Your task to perform on an android device: turn smart compose on in the gmail app Image 0: 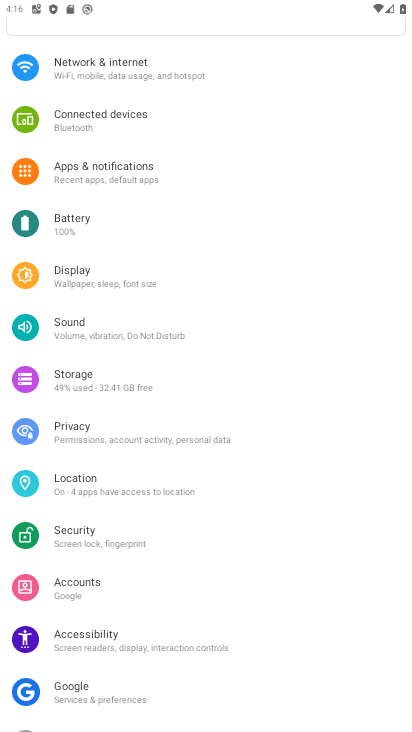
Step 0: press home button
Your task to perform on an android device: turn smart compose on in the gmail app Image 1: 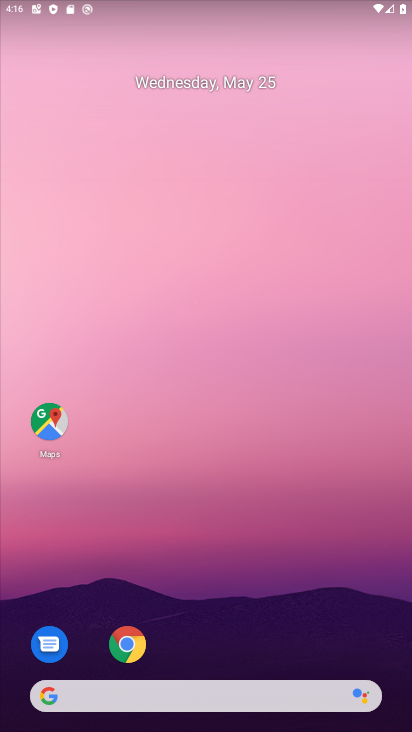
Step 1: drag from (258, 656) to (294, 16)
Your task to perform on an android device: turn smart compose on in the gmail app Image 2: 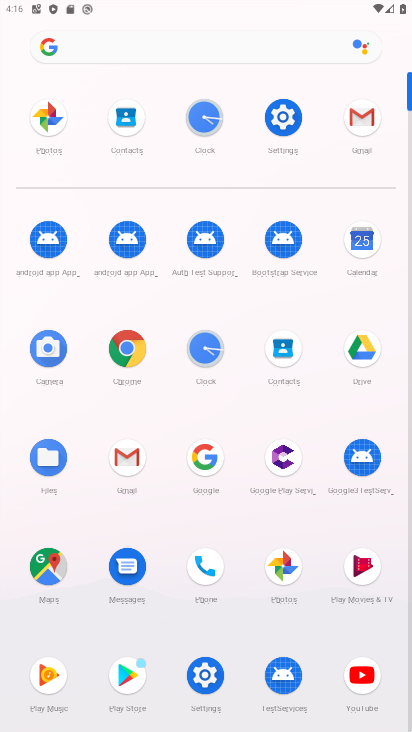
Step 2: click (361, 124)
Your task to perform on an android device: turn smart compose on in the gmail app Image 3: 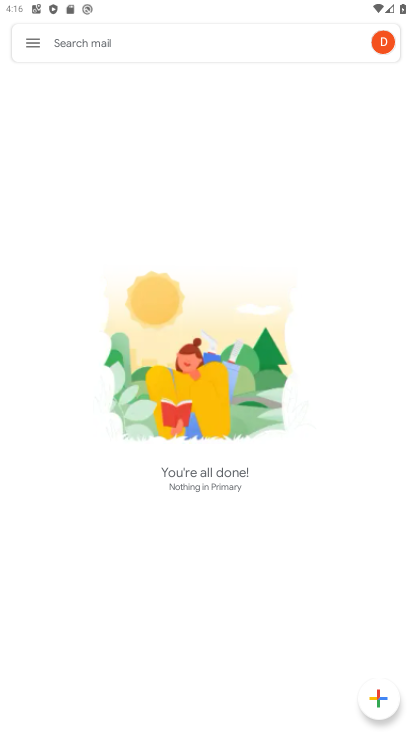
Step 3: click (27, 45)
Your task to perform on an android device: turn smart compose on in the gmail app Image 4: 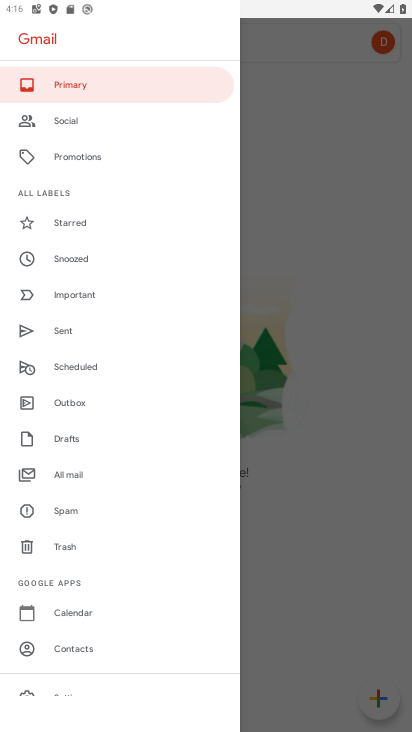
Step 4: drag from (158, 552) to (174, 264)
Your task to perform on an android device: turn smart compose on in the gmail app Image 5: 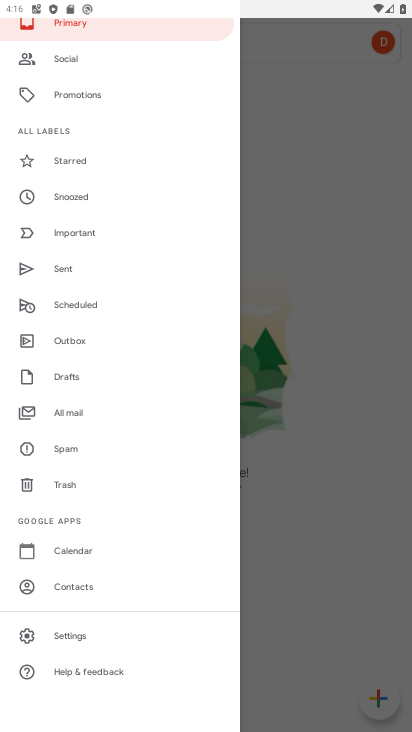
Step 5: click (76, 639)
Your task to perform on an android device: turn smart compose on in the gmail app Image 6: 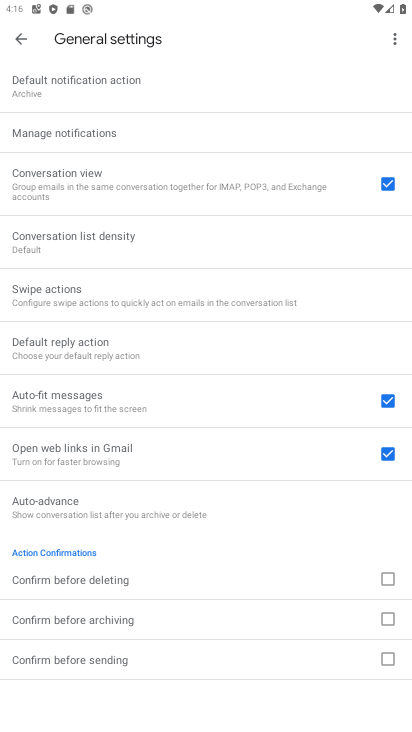
Step 6: drag from (164, 533) to (176, 428)
Your task to perform on an android device: turn smart compose on in the gmail app Image 7: 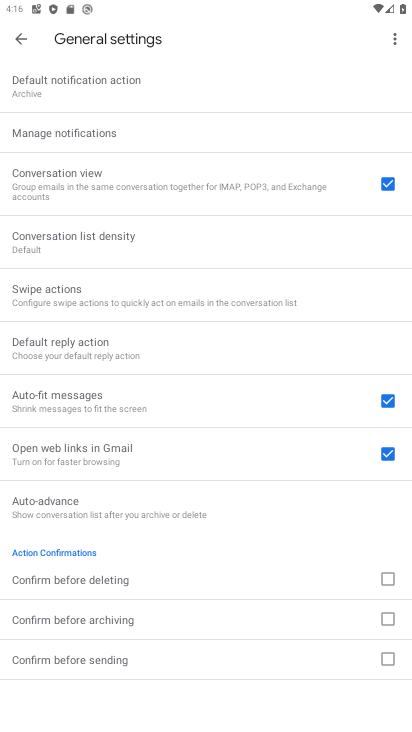
Step 7: click (24, 43)
Your task to perform on an android device: turn smart compose on in the gmail app Image 8: 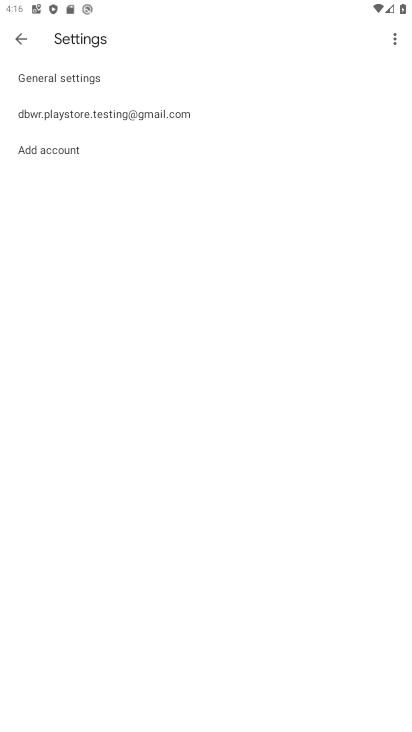
Step 8: click (59, 114)
Your task to perform on an android device: turn smart compose on in the gmail app Image 9: 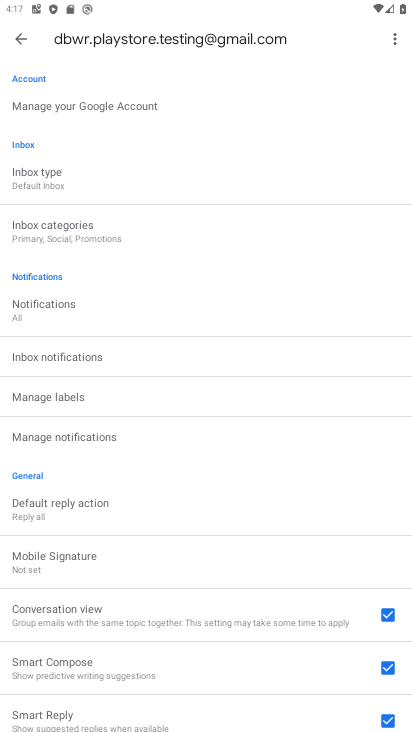
Step 9: task complete